Your task to perform on an android device: Go to Yahoo.com Image 0: 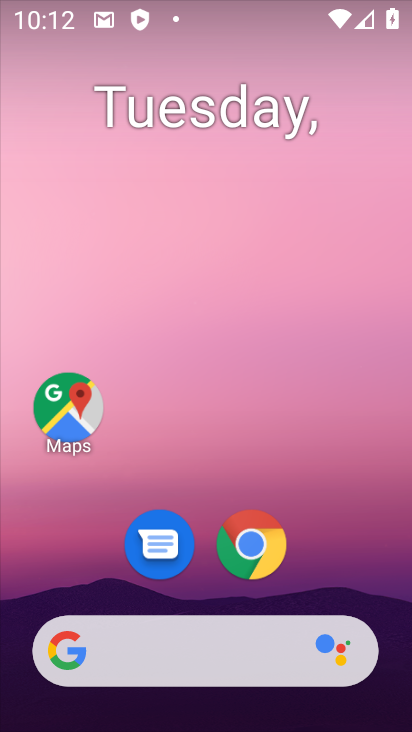
Step 0: drag from (355, 589) to (274, 182)
Your task to perform on an android device: Go to Yahoo.com Image 1: 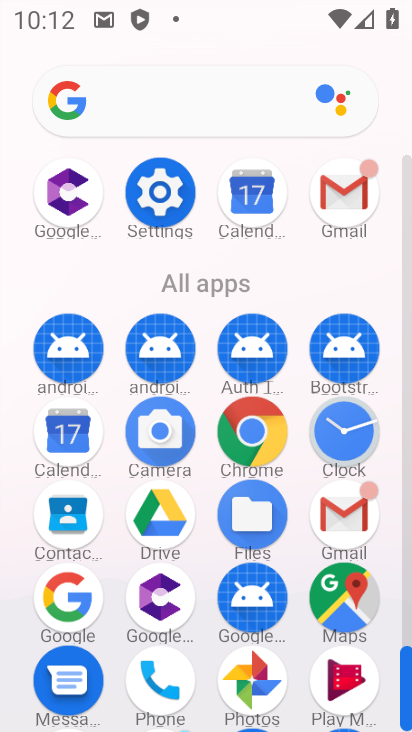
Step 1: click (261, 409)
Your task to perform on an android device: Go to Yahoo.com Image 2: 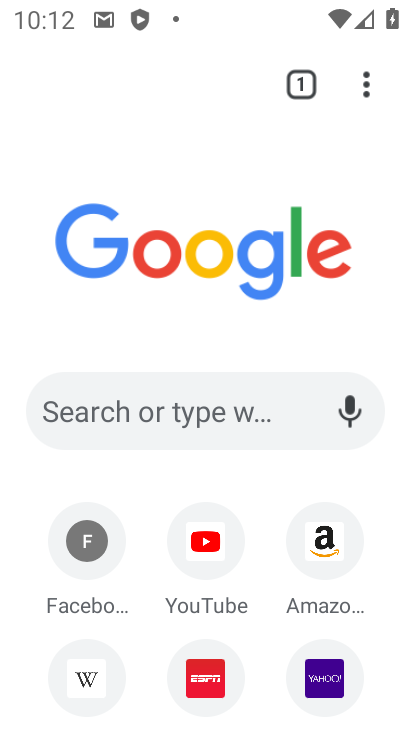
Step 2: click (344, 655)
Your task to perform on an android device: Go to Yahoo.com Image 3: 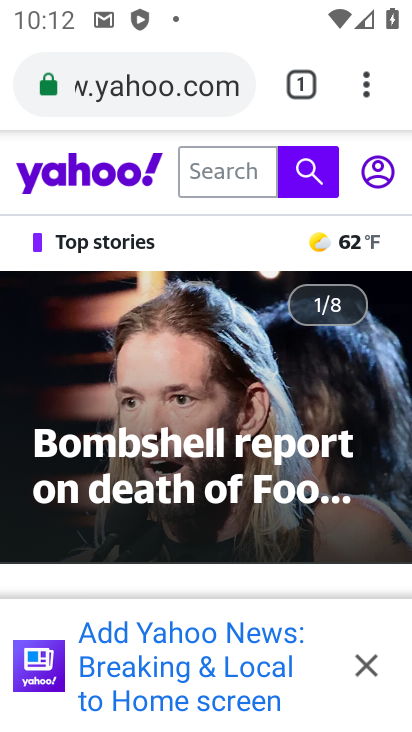
Step 3: task complete